Your task to perform on an android device: Open location settings Image 0: 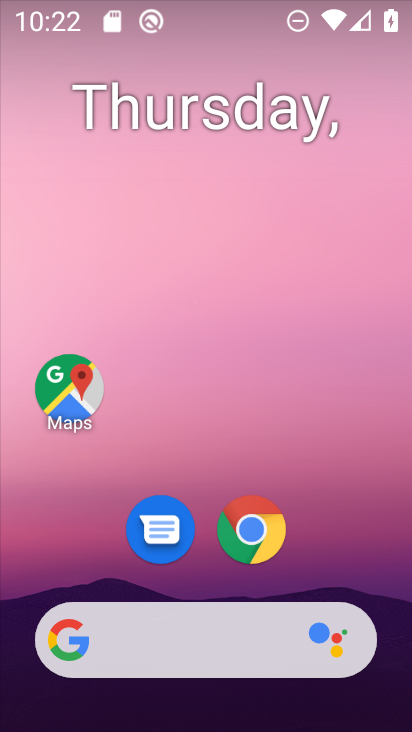
Step 0: drag from (235, 569) to (299, 59)
Your task to perform on an android device: Open location settings Image 1: 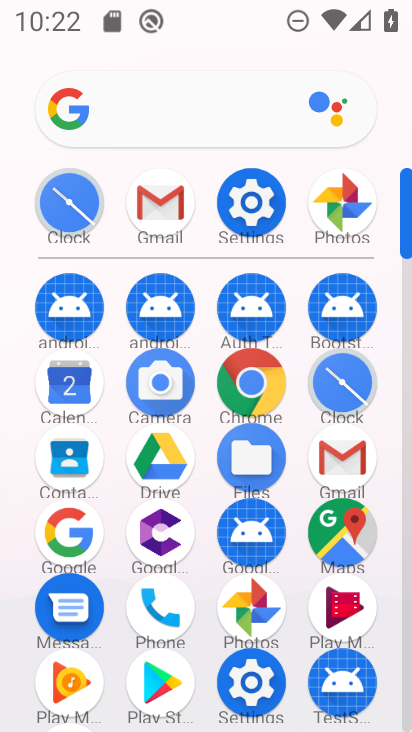
Step 1: click (240, 200)
Your task to perform on an android device: Open location settings Image 2: 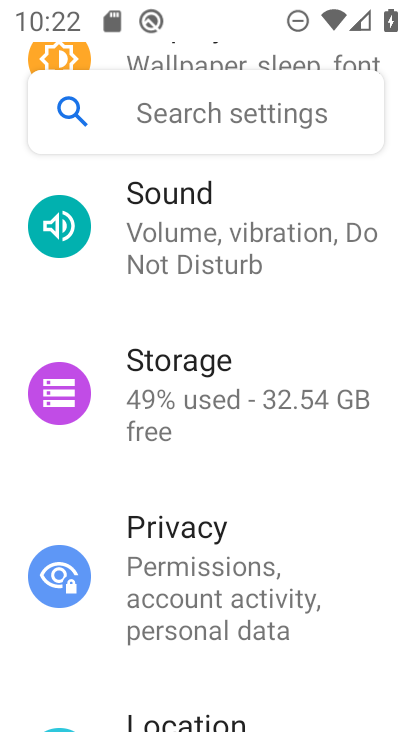
Step 2: click (239, 723)
Your task to perform on an android device: Open location settings Image 3: 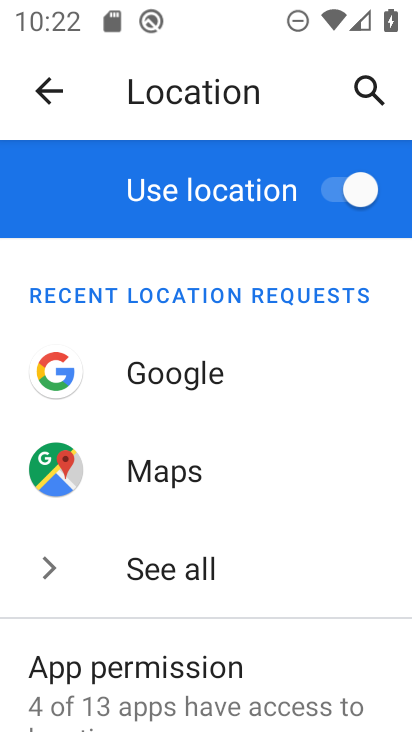
Step 3: task complete